Your task to perform on an android device: turn notification dots off Image 0: 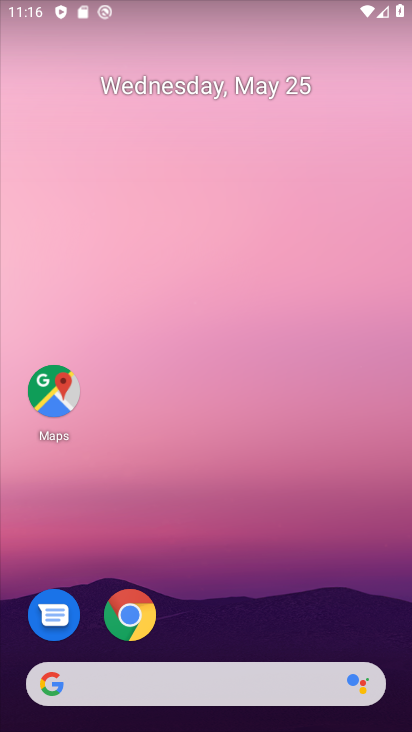
Step 0: click (382, 62)
Your task to perform on an android device: turn notification dots off Image 1: 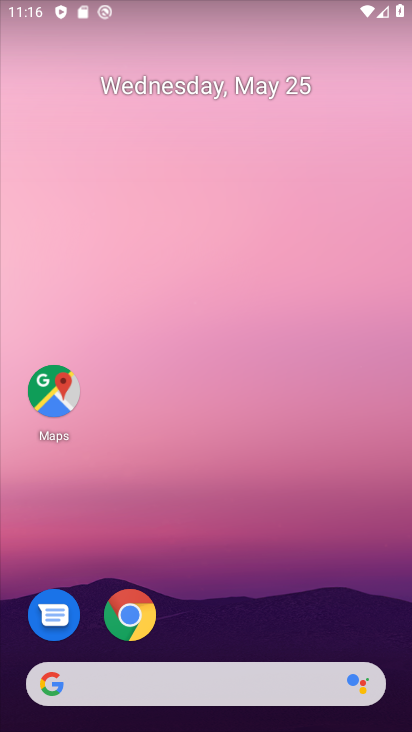
Step 1: drag from (200, 534) to (133, 183)
Your task to perform on an android device: turn notification dots off Image 2: 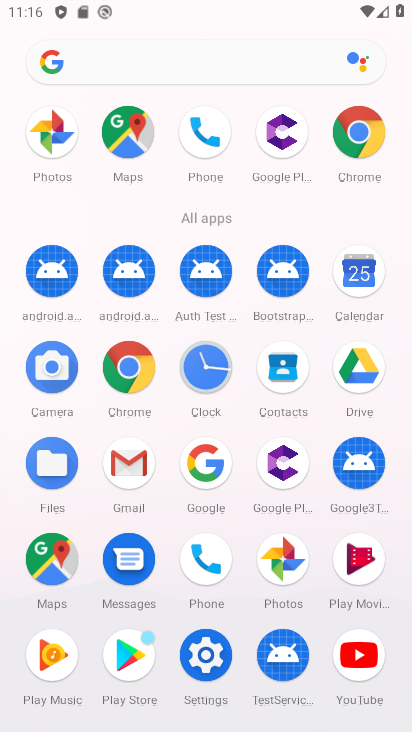
Step 2: click (202, 644)
Your task to perform on an android device: turn notification dots off Image 3: 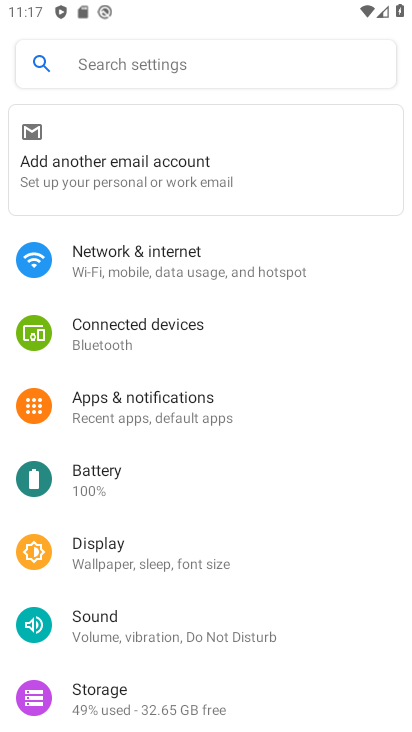
Step 3: click (196, 375)
Your task to perform on an android device: turn notification dots off Image 4: 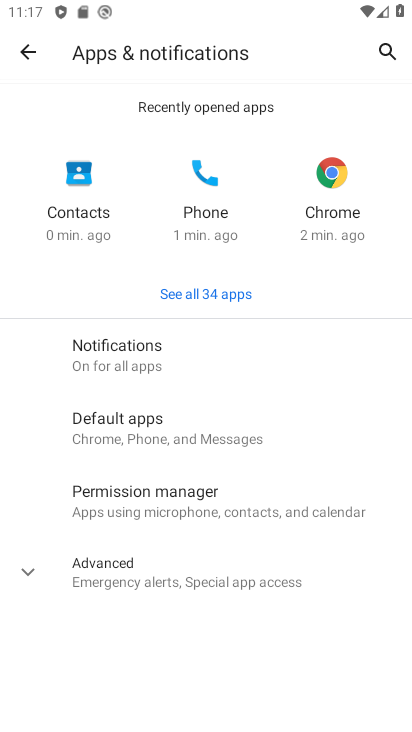
Step 4: click (196, 375)
Your task to perform on an android device: turn notification dots off Image 5: 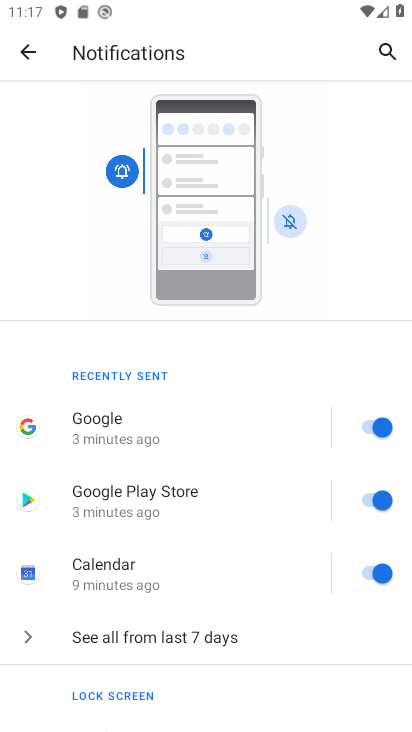
Step 5: drag from (143, 665) to (73, 240)
Your task to perform on an android device: turn notification dots off Image 6: 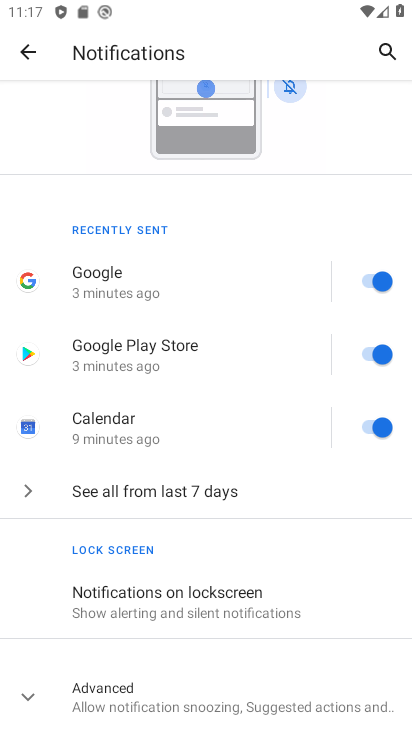
Step 6: click (140, 699)
Your task to perform on an android device: turn notification dots off Image 7: 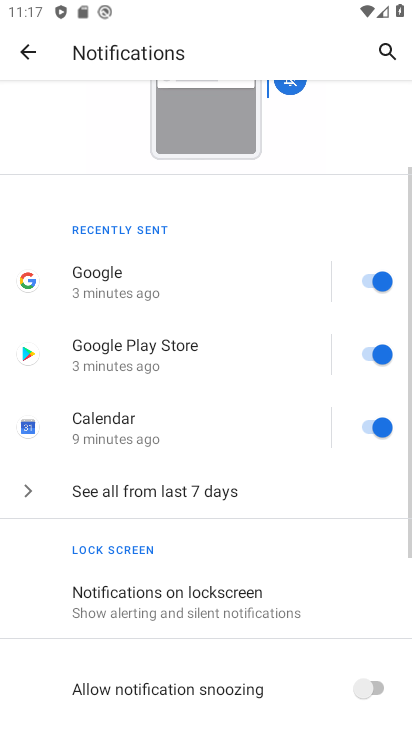
Step 7: drag from (140, 699) to (40, 325)
Your task to perform on an android device: turn notification dots off Image 8: 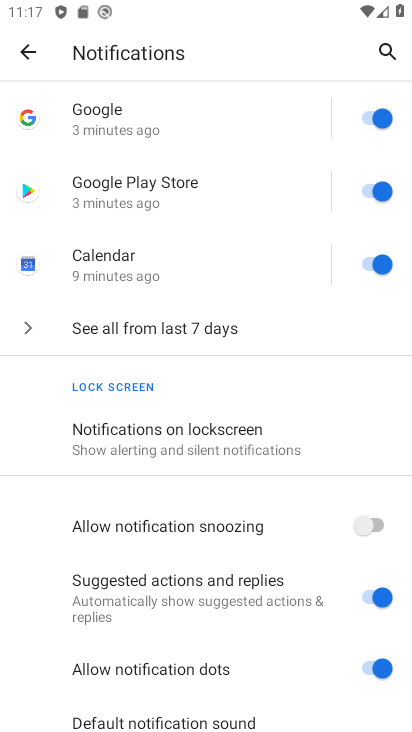
Step 8: drag from (294, 374) to (246, 70)
Your task to perform on an android device: turn notification dots off Image 9: 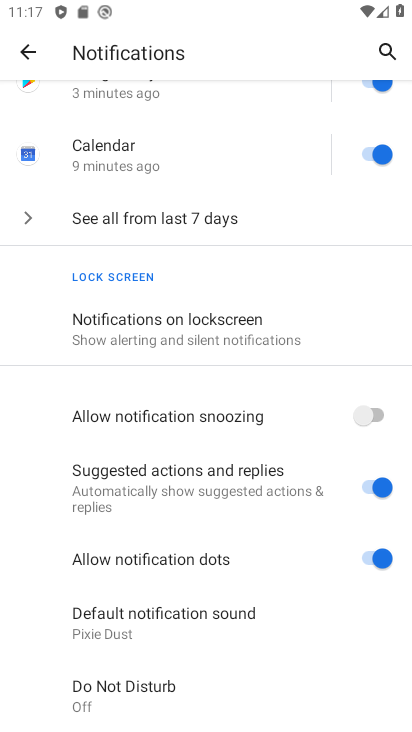
Step 9: drag from (272, 636) to (240, 447)
Your task to perform on an android device: turn notification dots off Image 10: 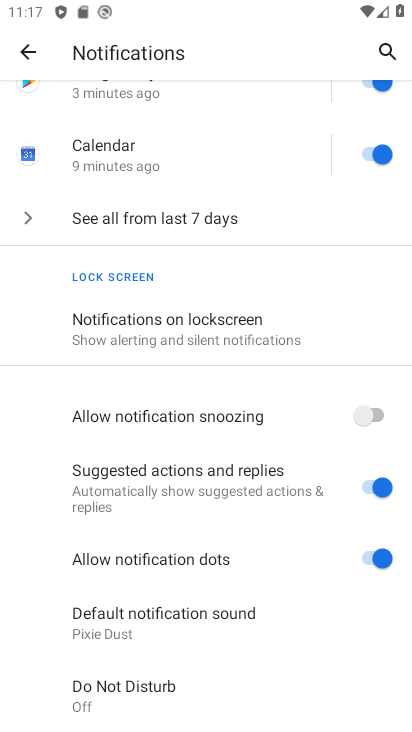
Step 10: click (373, 552)
Your task to perform on an android device: turn notification dots off Image 11: 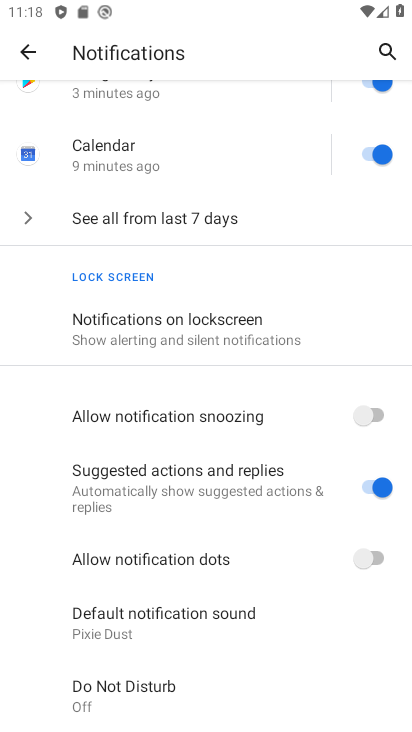
Step 11: task complete